Your task to perform on an android device: Do I have any events this weekend? Image 0: 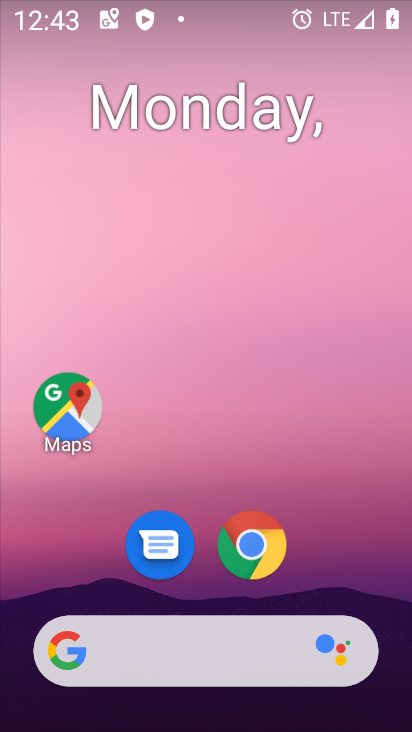
Step 0: drag from (384, 599) to (377, 225)
Your task to perform on an android device: Do I have any events this weekend? Image 1: 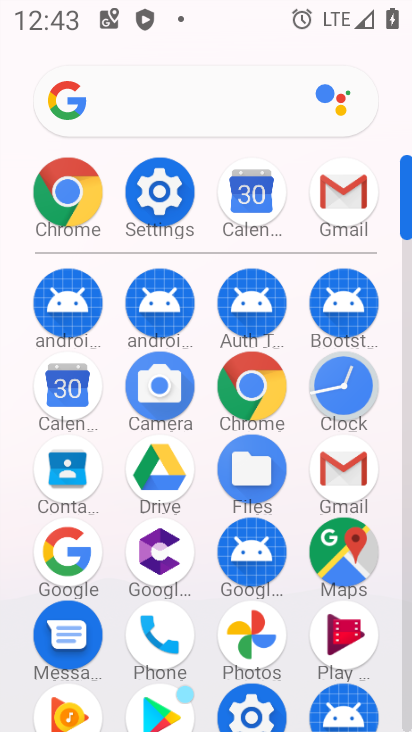
Step 1: click (68, 417)
Your task to perform on an android device: Do I have any events this weekend? Image 2: 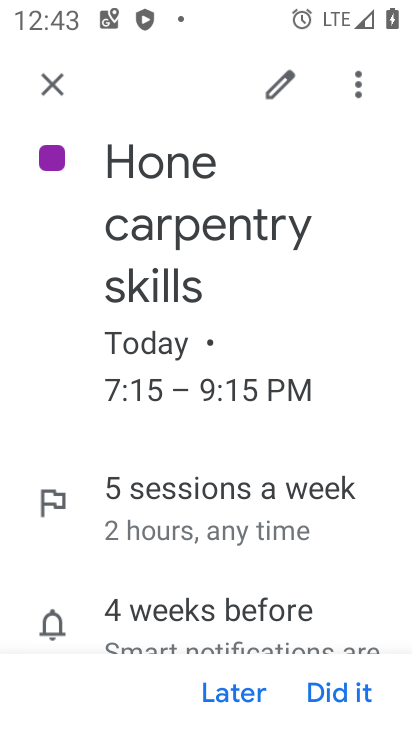
Step 2: click (53, 76)
Your task to perform on an android device: Do I have any events this weekend? Image 3: 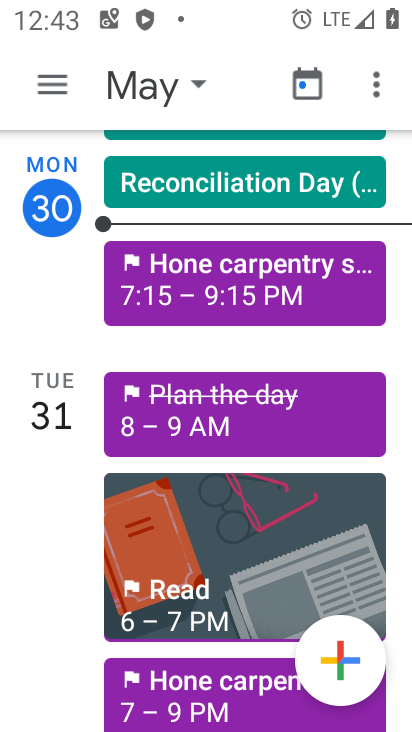
Step 3: click (192, 91)
Your task to perform on an android device: Do I have any events this weekend? Image 4: 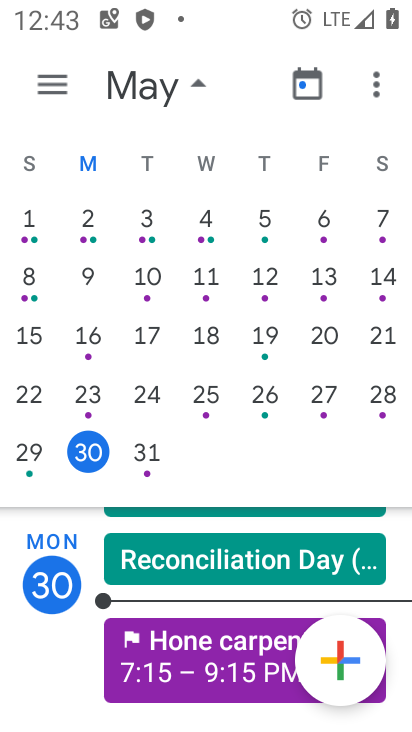
Step 4: drag from (181, 538) to (204, 130)
Your task to perform on an android device: Do I have any events this weekend? Image 5: 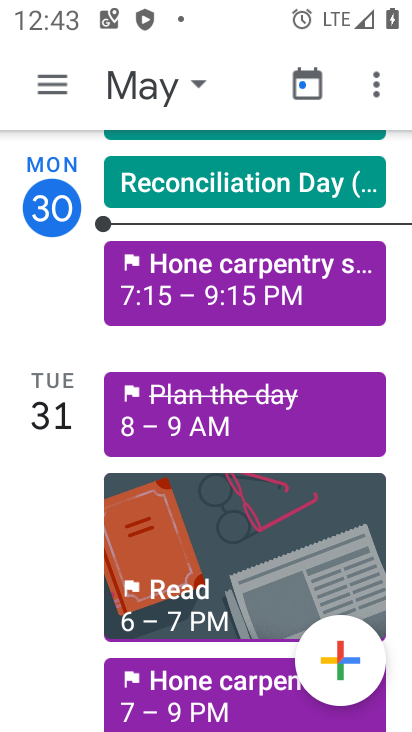
Step 5: drag from (216, 543) to (212, 357)
Your task to perform on an android device: Do I have any events this weekend? Image 6: 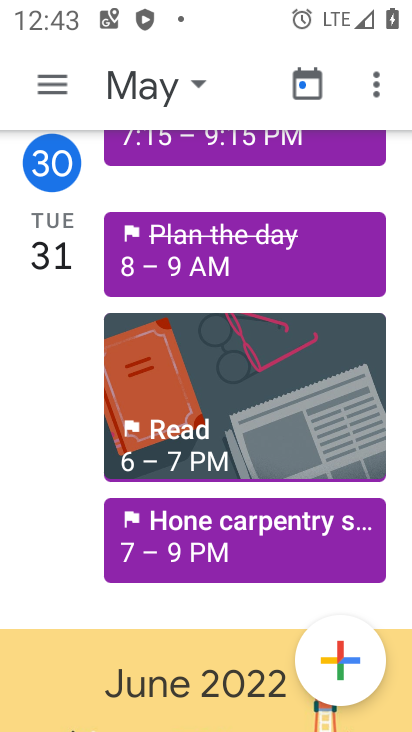
Step 6: drag from (202, 615) to (220, 355)
Your task to perform on an android device: Do I have any events this weekend? Image 7: 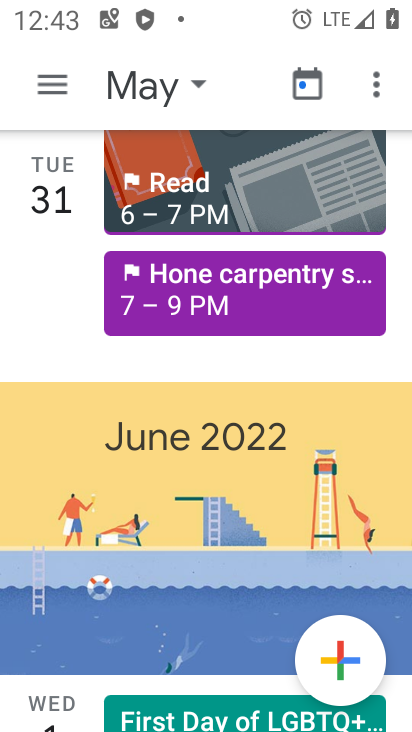
Step 7: drag from (233, 574) to (223, 284)
Your task to perform on an android device: Do I have any events this weekend? Image 8: 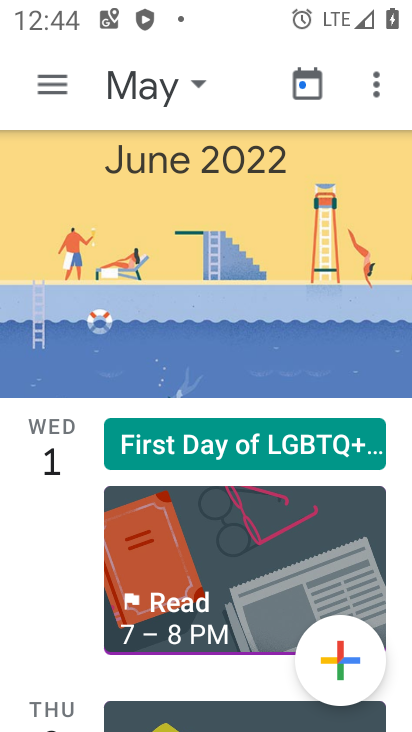
Step 8: drag from (244, 608) to (259, 329)
Your task to perform on an android device: Do I have any events this weekend? Image 9: 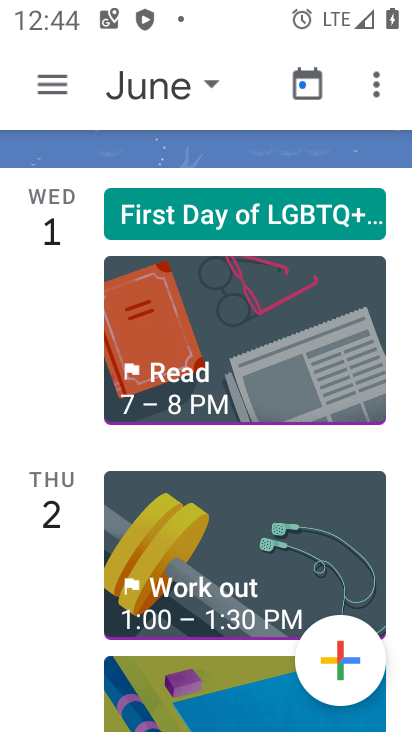
Step 9: drag from (269, 607) to (269, 281)
Your task to perform on an android device: Do I have any events this weekend? Image 10: 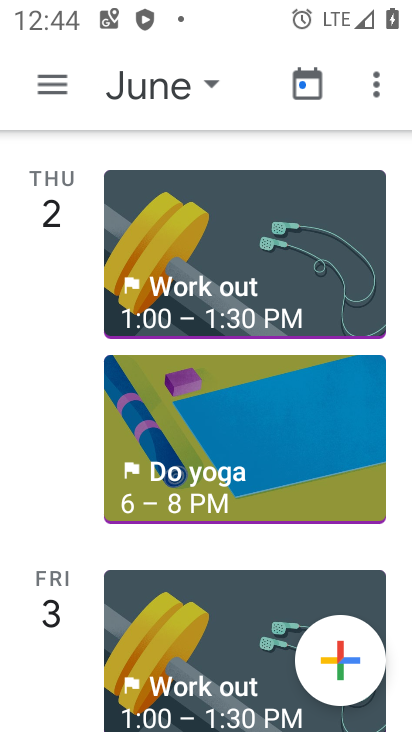
Step 10: drag from (237, 621) to (251, 175)
Your task to perform on an android device: Do I have any events this weekend? Image 11: 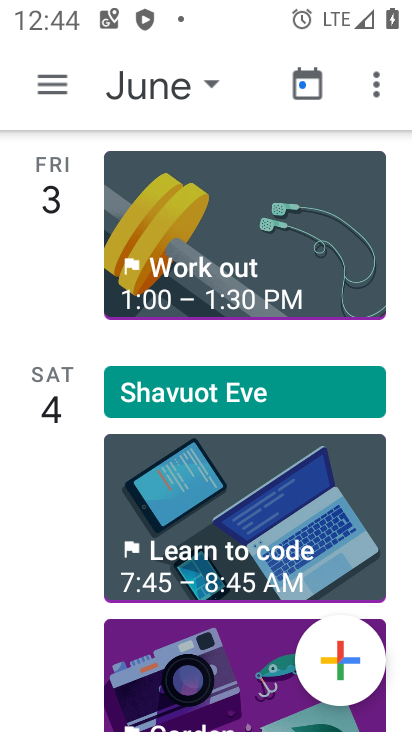
Step 11: drag from (225, 559) to (282, 252)
Your task to perform on an android device: Do I have any events this weekend? Image 12: 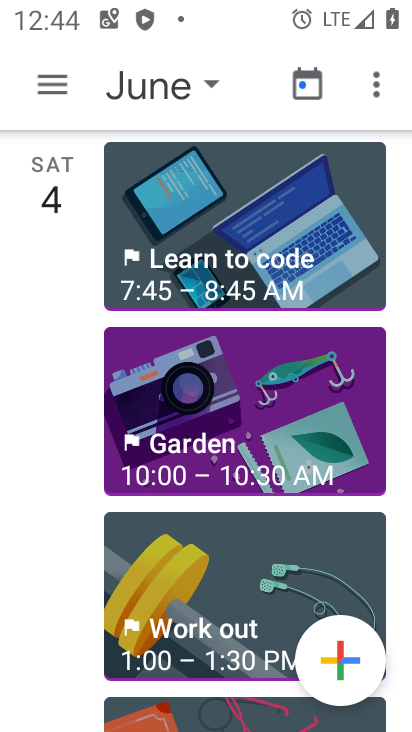
Step 12: click (259, 407)
Your task to perform on an android device: Do I have any events this weekend? Image 13: 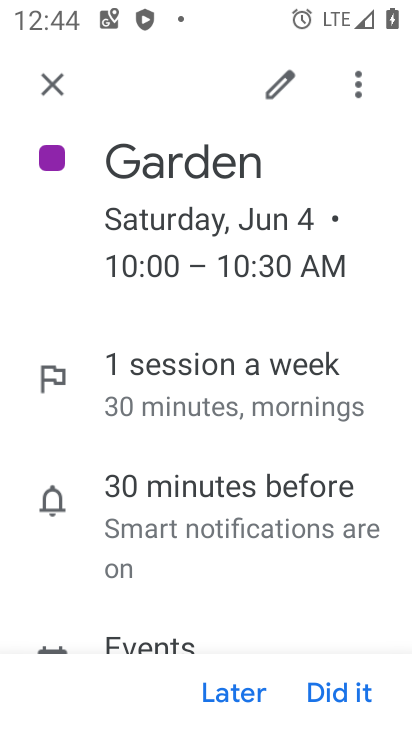
Step 13: task complete